Your task to perform on an android device: turn off sleep mode Image 0: 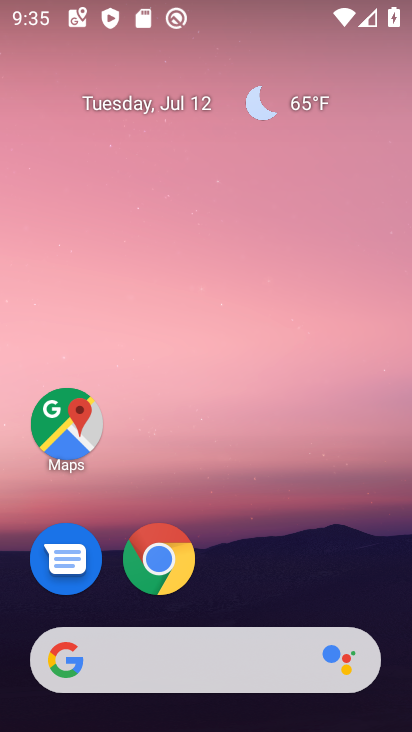
Step 0: drag from (375, 550) to (329, 132)
Your task to perform on an android device: turn off sleep mode Image 1: 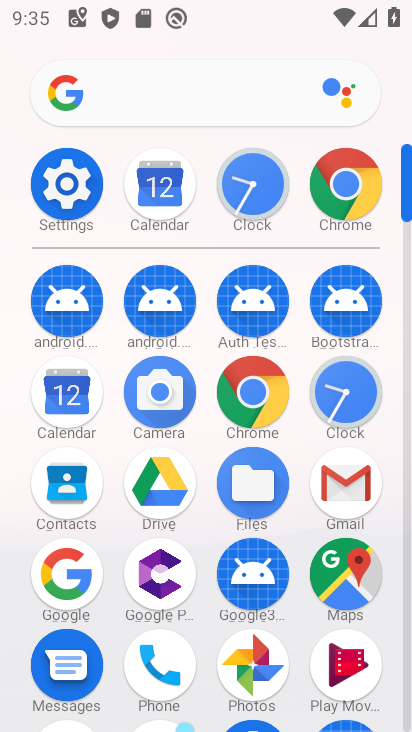
Step 1: click (86, 188)
Your task to perform on an android device: turn off sleep mode Image 2: 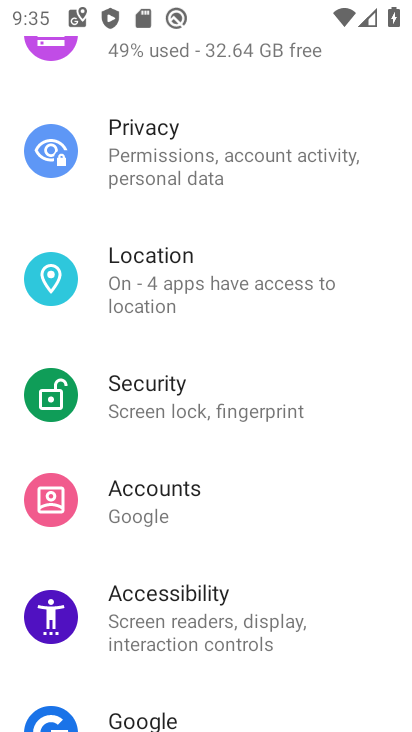
Step 2: drag from (319, 540) to (353, 276)
Your task to perform on an android device: turn off sleep mode Image 3: 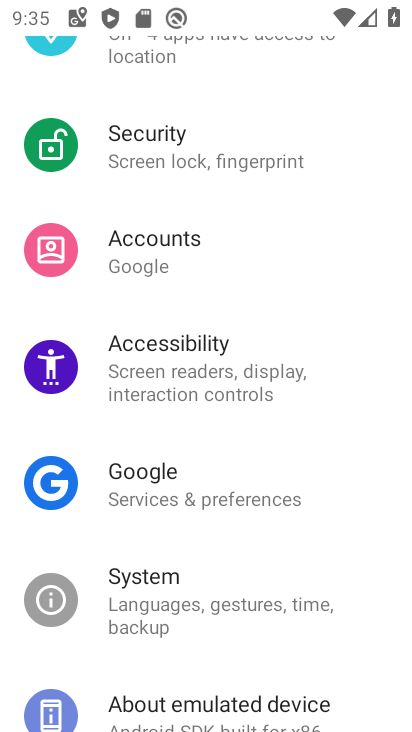
Step 3: drag from (364, 477) to (369, 192)
Your task to perform on an android device: turn off sleep mode Image 4: 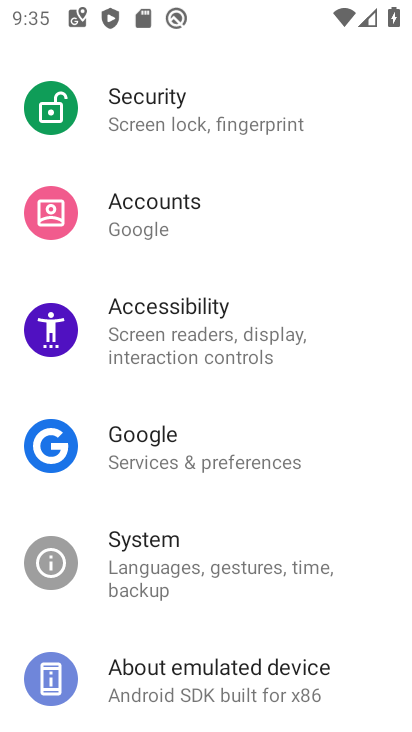
Step 4: drag from (356, 219) to (362, 476)
Your task to perform on an android device: turn off sleep mode Image 5: 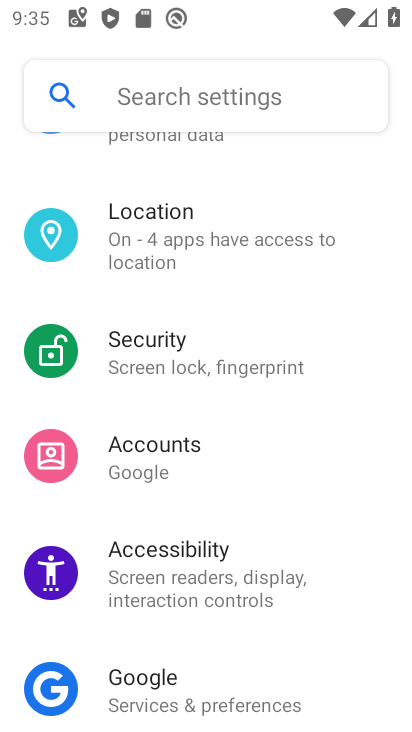
Step 5: drag from (364, 192) to (372, 460)
Your task to perform on an android device: turn off sleep mode Image 6: 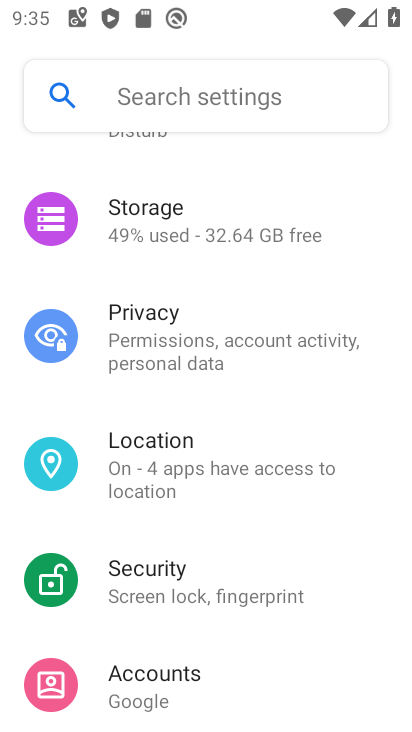
Step 6: drag from (355, 197) to (367, 344)
Your task to perform on an android device: turn off sleep mode Image 7: 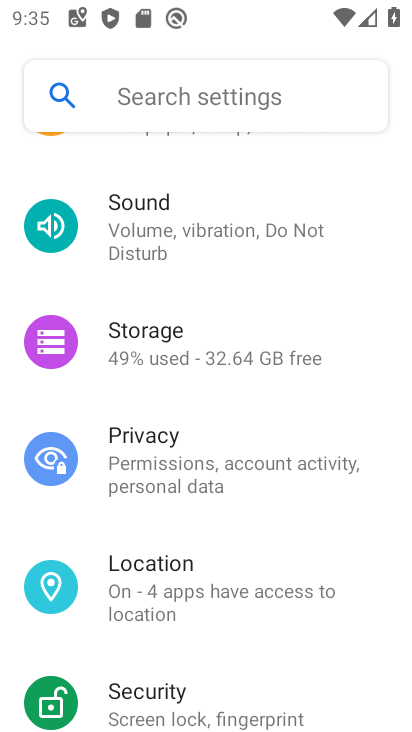
Step 7: drag from (357, 210) to (353, 398)
Your task to perform on an android device: turn off sleep mode Image 8: 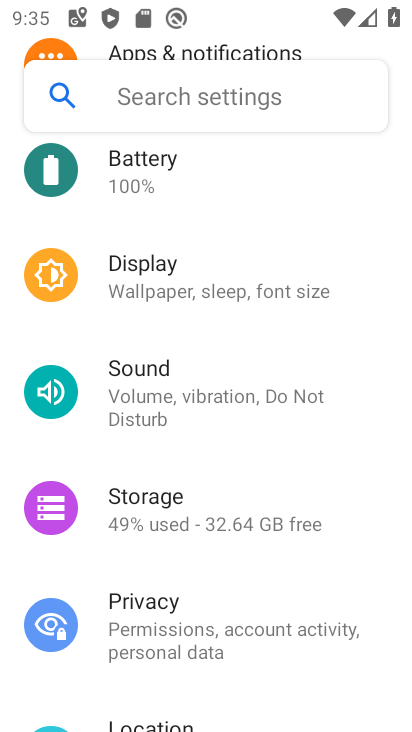
Step 8: drag from (358, 224) to (362, 369)
Your task to perform on an android device: turn off sleep mode Image 9: 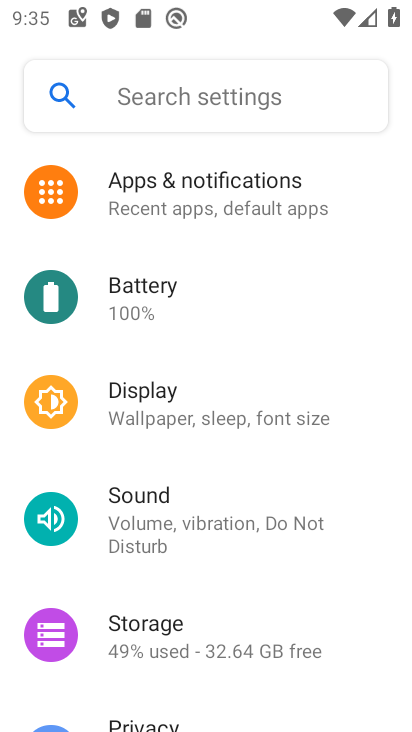
Step 9: click (312, 422)
Your task to perform on an android device: turn off sleep mode Image 10: 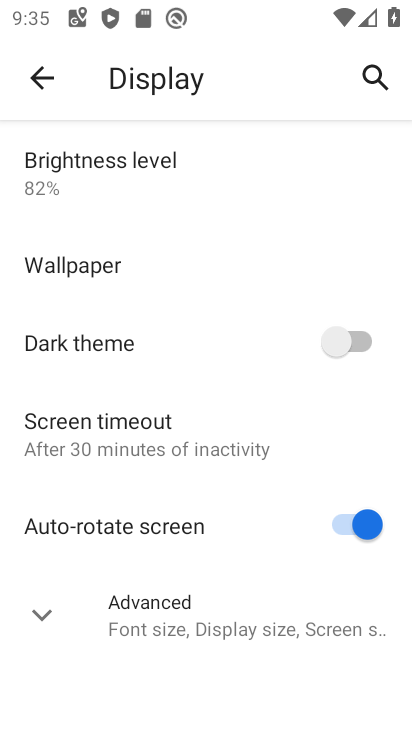
Step 10: drag from (275, 555) to (277, 405)
Your task to perform on an android device: turn off sleep mode Image 11: 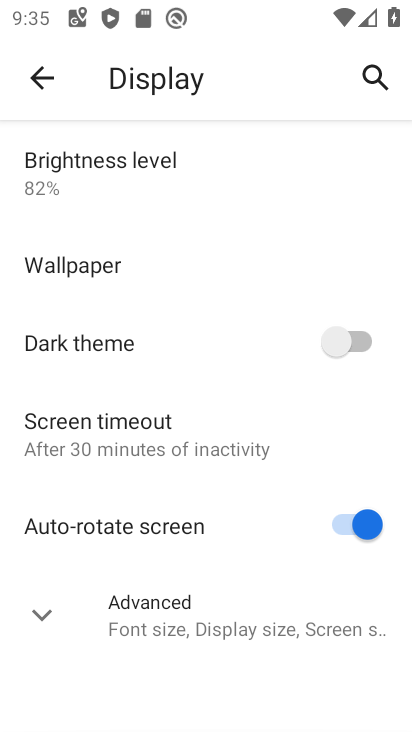
Step 11: click (261, 619)
Your task to perform on an android device: turn off sleep mode Image 12: 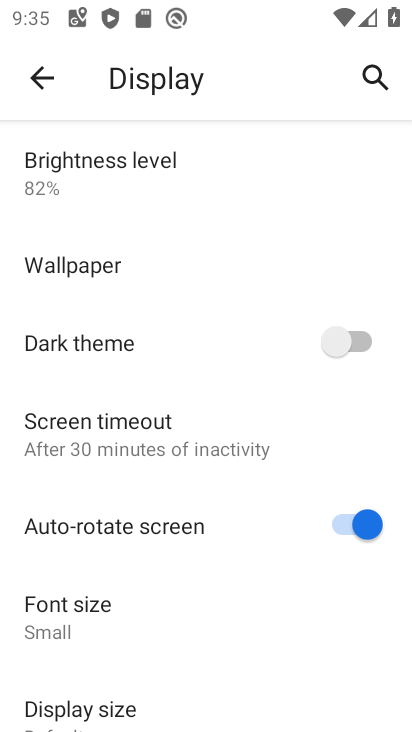
Step 12: task complete